Your task to perform on an android device: change keyboard looks Image 0: 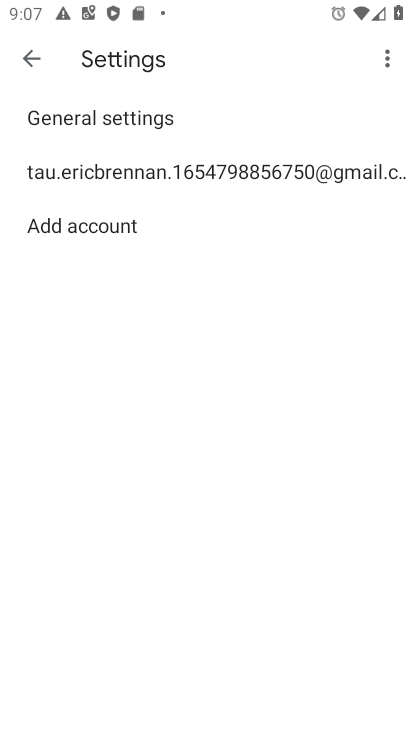
Step 0: press home button
Your task to perform on an android device: change keyboard looks Image 1: 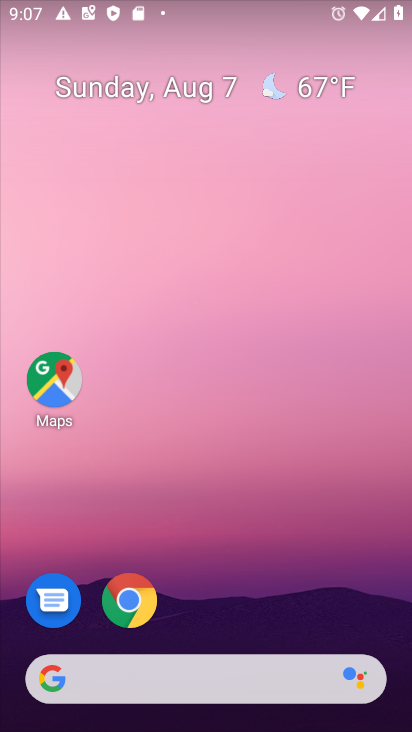
Step 1: drag from (171, 616) to (171, 146)
Your task to perform on an android device: change keyboard looks Image 2: 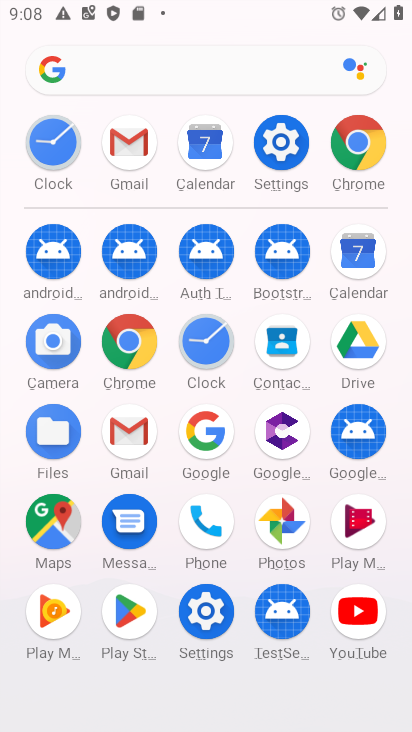
Step 2: click (272, 151)
Your task to perform on an android device: change keyboard looks Image 3: 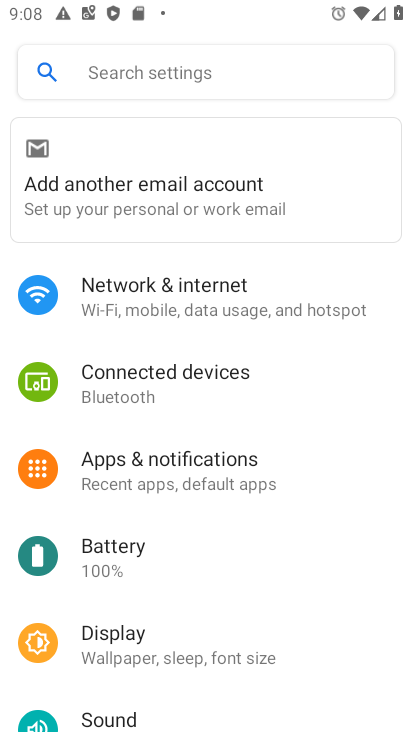
Step 3: drag from (123, 658) to (174, 335)
Your task to perform on an android device: change keyboard looks Image 4: 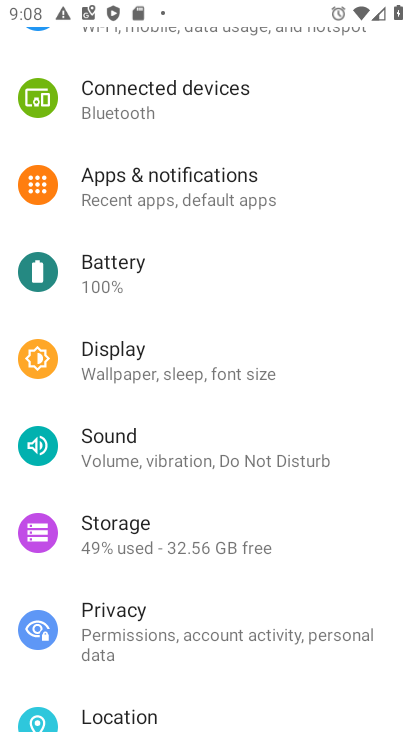
Step 4: drag from (138, 616) to (186, 165)
Your task to perform on an android device: change keyboard looks Image 5: 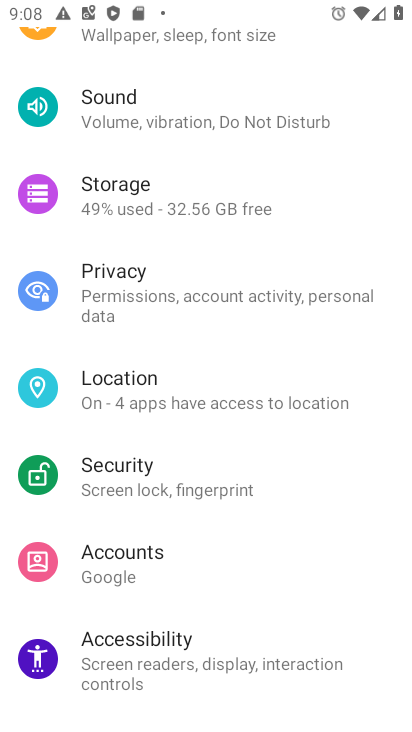
Step 5: drag from (238, 565) to (248, 310)
Your task to perform on an android device: change keyboard looks Image 6: 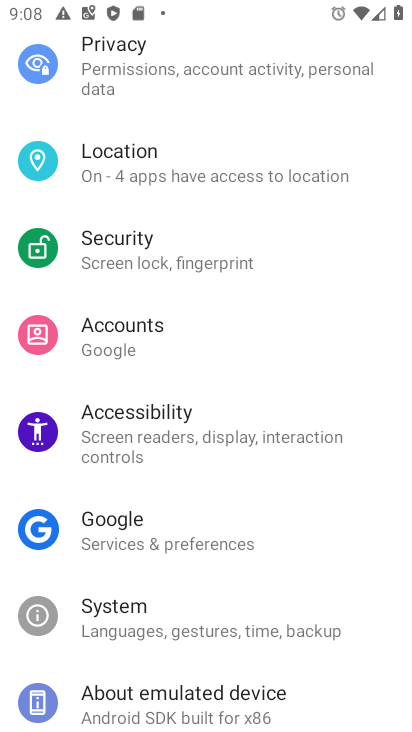
Step 6: click (143, 620)
Your task to perform on an android device: change keyboard looks Image 7: 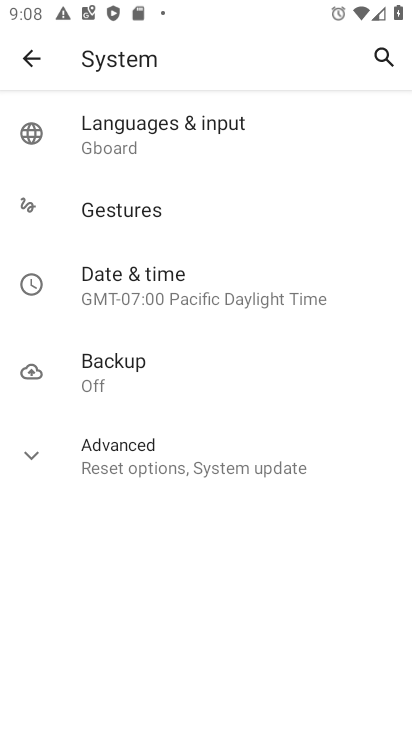
Step 7: click (112, 146)
Your task to perform on an android device: change keyboard looks Image 8: 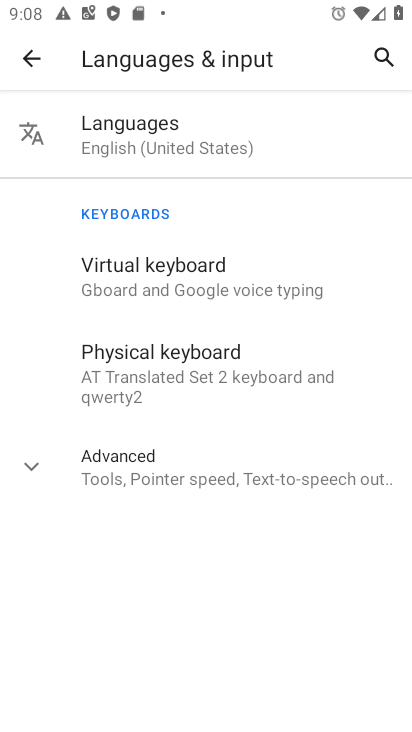
Step 8: click (129, 273)
Your task to perform on an android device: change keyboard looks Image 9: 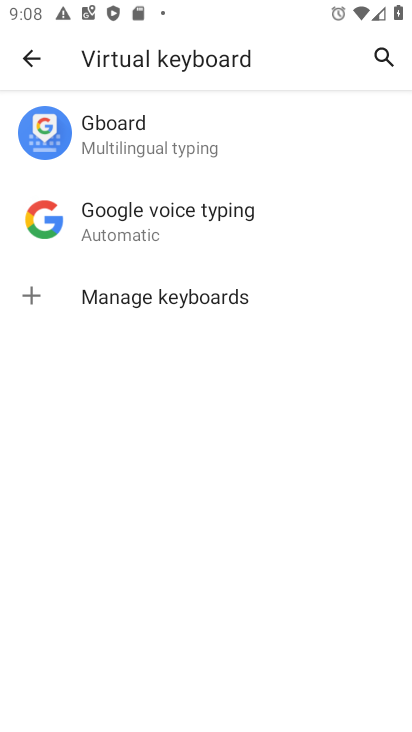
Step 9: click (121, 144)
Your task to perform on an android device: change keyboard looks Image 10: 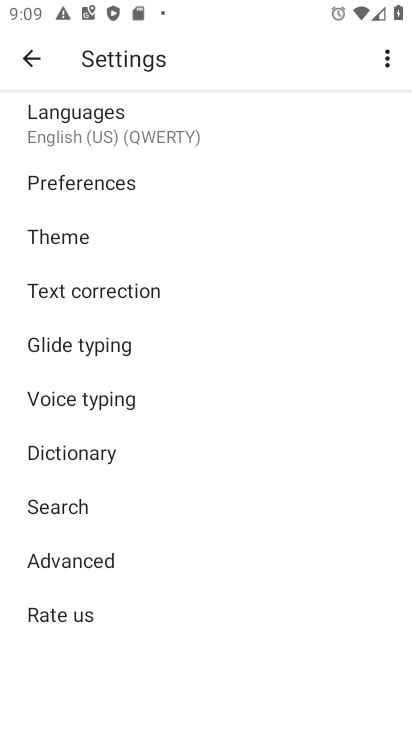
Step 10: click (67, 240)
Your task to perform on an android device: change keyboard looks Image 11: 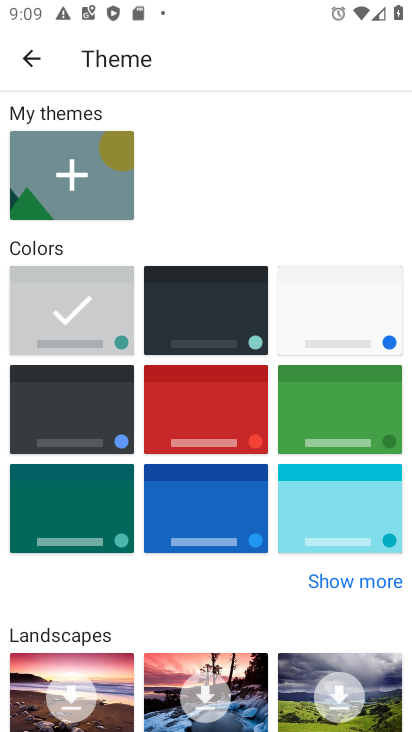
Step 11: click (216, 321)
Your task to perform on an android device: change keyboard looks Image 12: 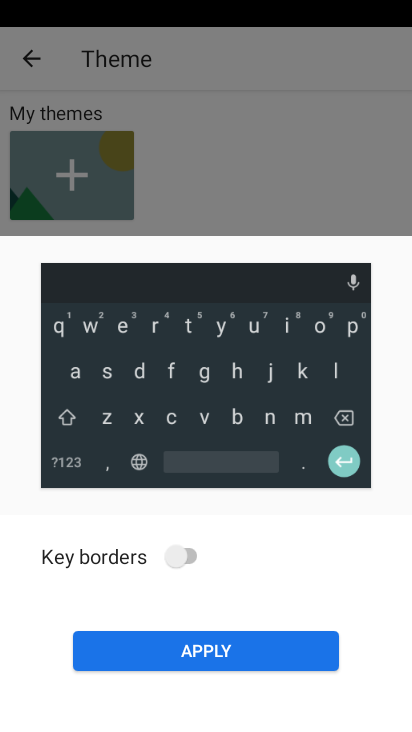
Step 12: click (187, 639)
Your task to perform on an android device: change keyboard looks Image 13: 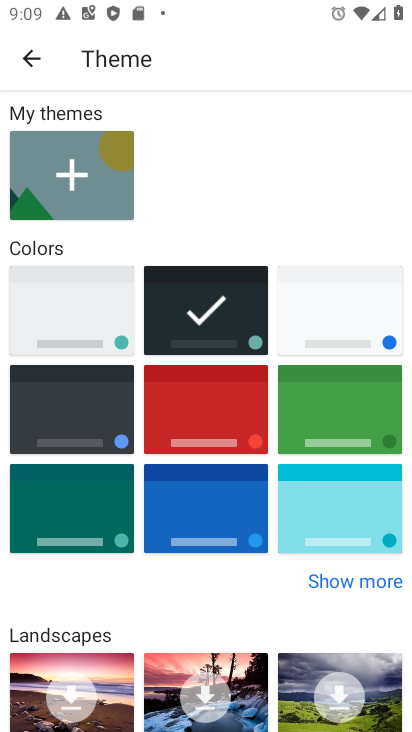
Step 13: task complete